Your task to perform on an android device: turn on the 12-hour format for clock Image 0: 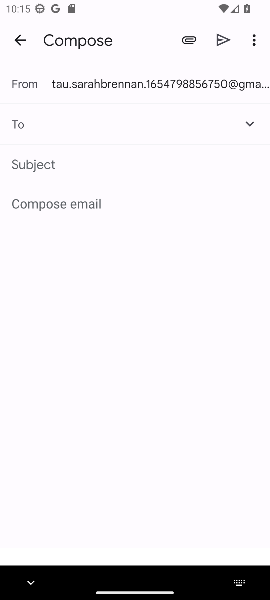
Step 0: press home button
Your task to perform on an android device: turn on the 12-hour format for clock Image 1: 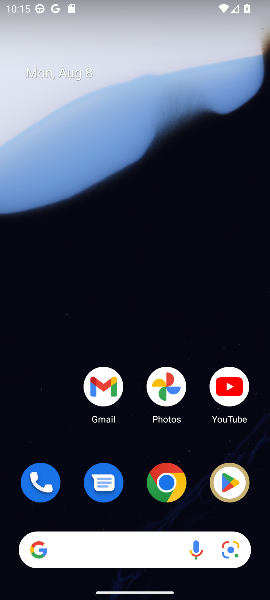
Step 1: drag from (136, 442) to (158, 0)
Your task to perform on an android device: turn on the 12-hour format for clock Image 2: 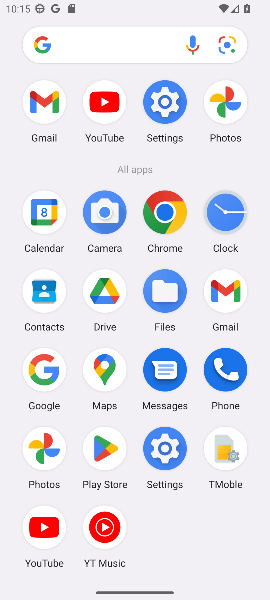
Step 2: click (211, 210)
Your task to perform on an android device: turn on the 12-hour format for clock Image 3: 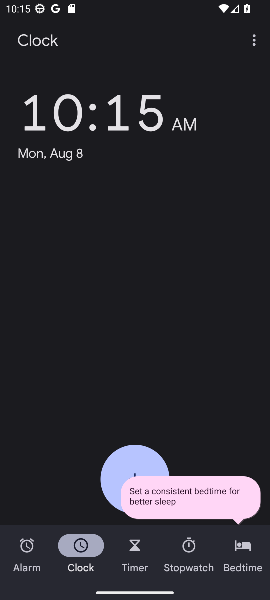
Step 3: click (251, 41)
Your task to perform on an android device: turn on the 12-hour format for clock Image 4: 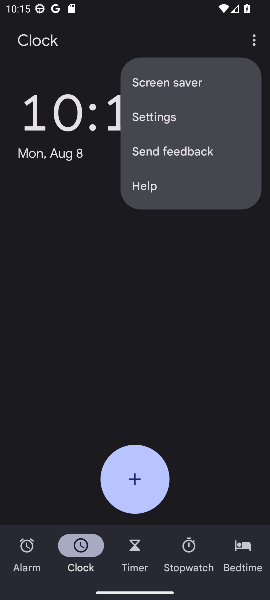
Step 4: click (167, 117)
Your task to perform on an android device: turn on the 12-hour format for clock Image 5: 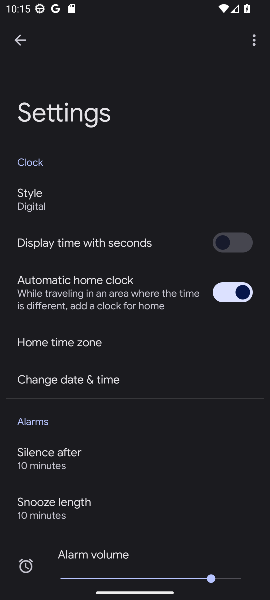
Step 5: click (98, 372)
Your task to perform on an android device: turn on the 12-hour format for clock Image 6: 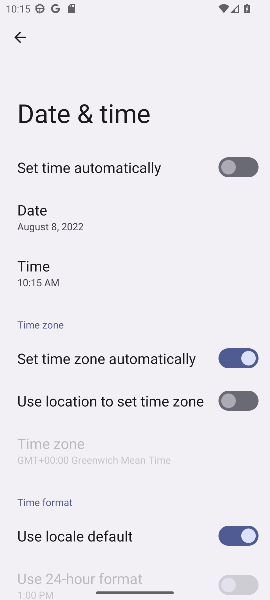
Step 6: task complete